Your task to perform on an android device: open app "DoorDash - Food Delivery" (install if not already installed) Image 0: 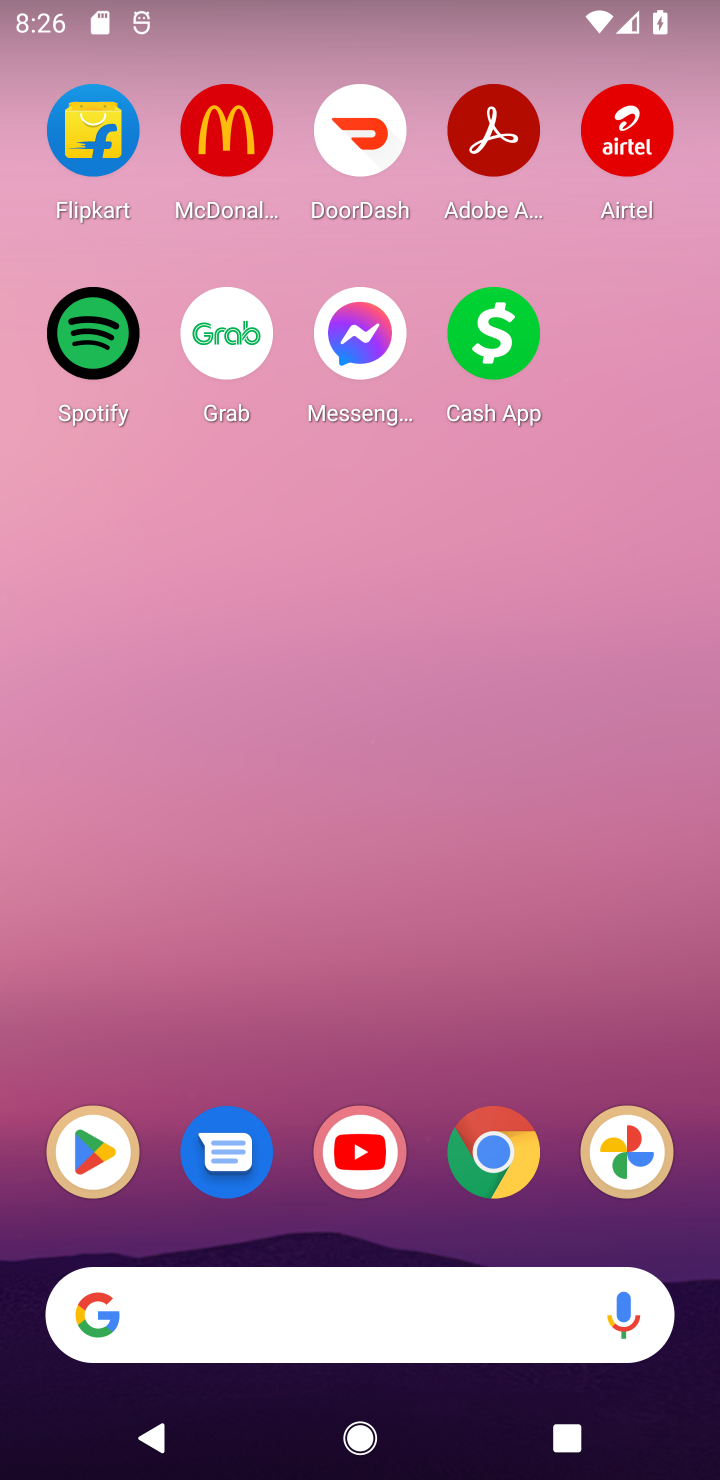
Step 0: click (84, 1137)
Your task to perform on an android device: open app "DoorDash - Food Delivery" (install if not already installed) Image 1: 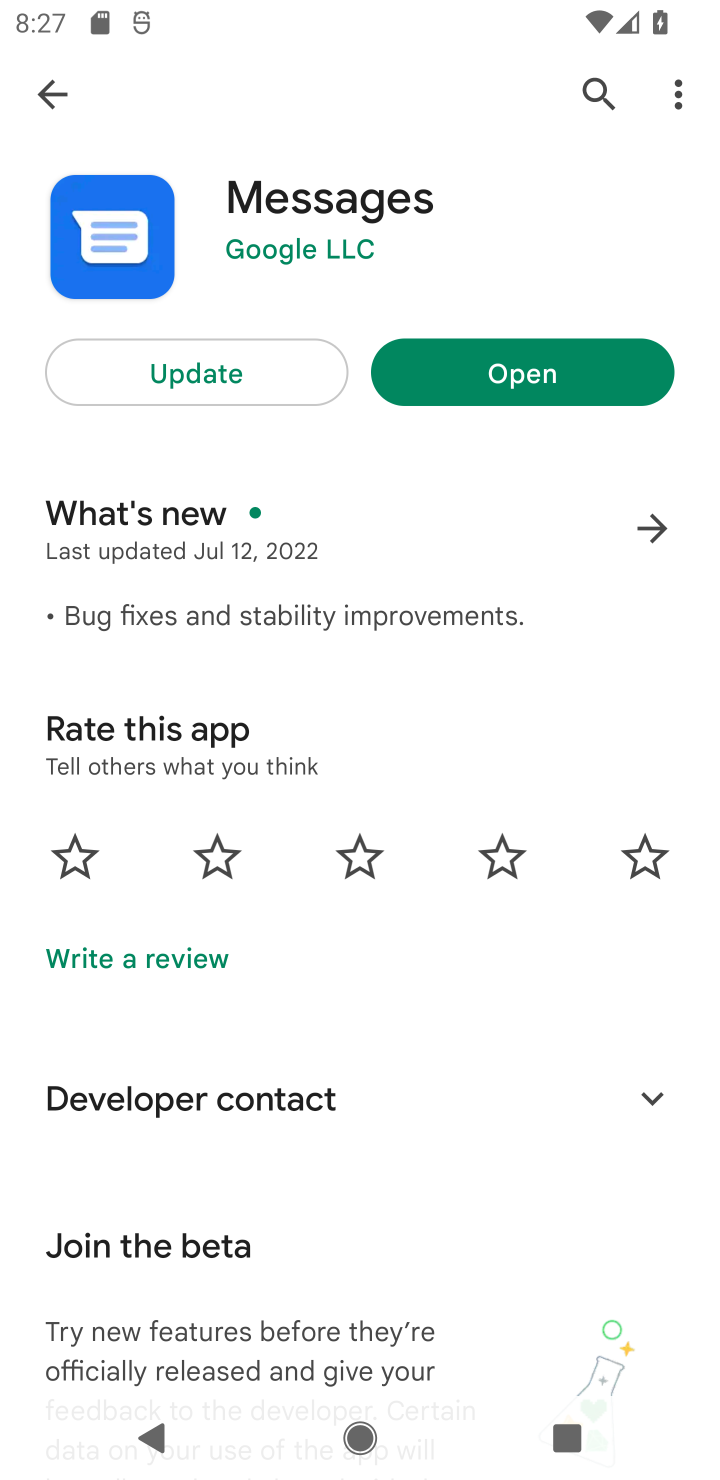
Step 1: click (53, 99)
Your task to perform on an android device: open app "DoorDash - Food Delivery" (install if not already installed) Image 2: 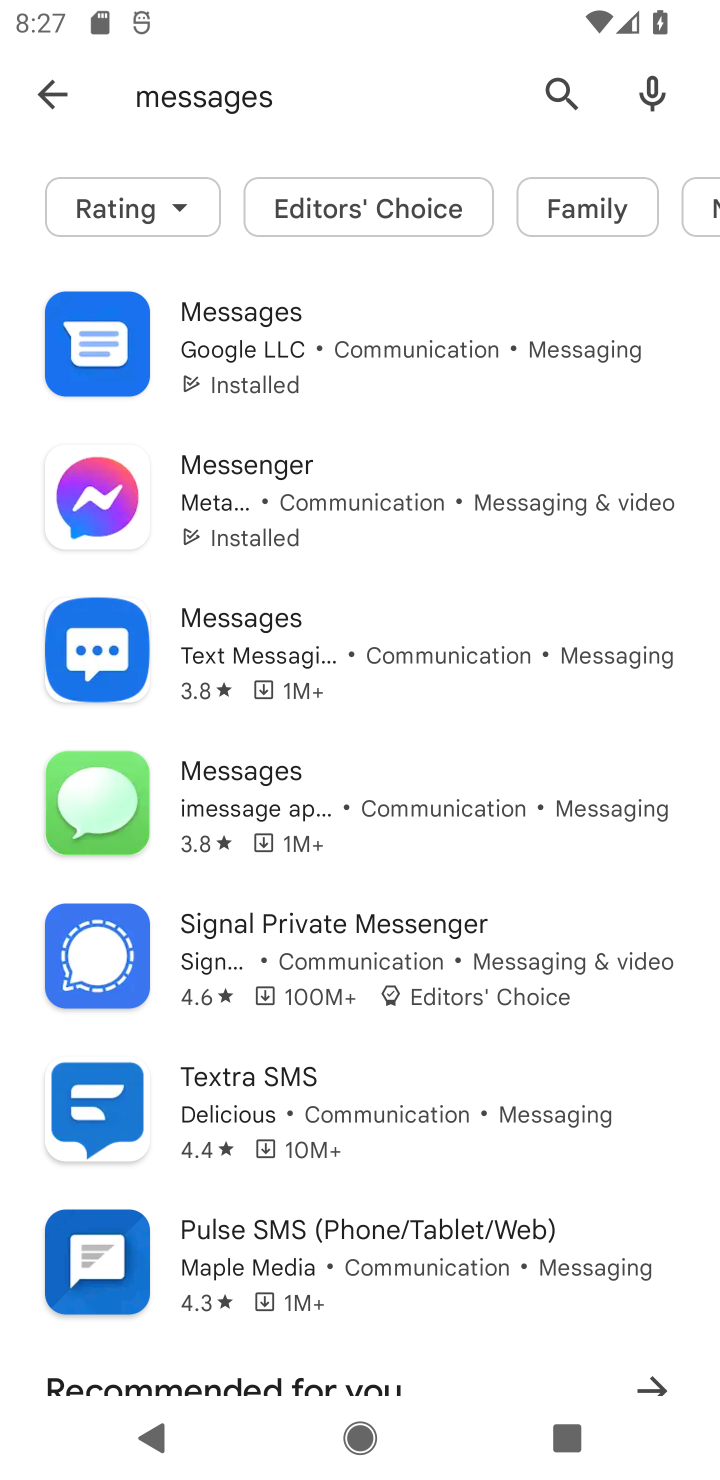
Step 2: click (50, 88)
Your task to perform on an android device: open app "DoorDash - Food Delivery" (install if not already installed) Image 3: 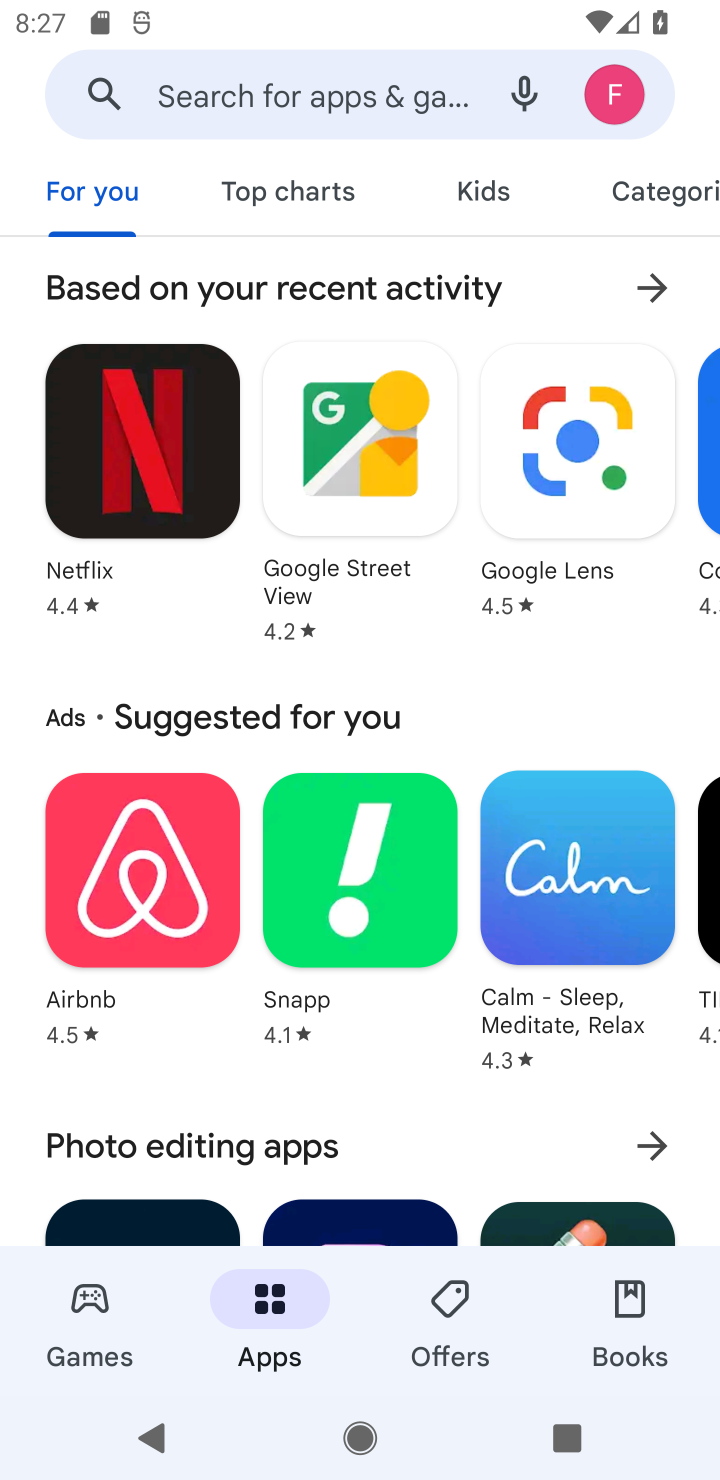
Step 3: click (210, 89)
Your task to perform on an android device: open app "DoorDash - Food Delivery" (install if not already installed) Image 4: 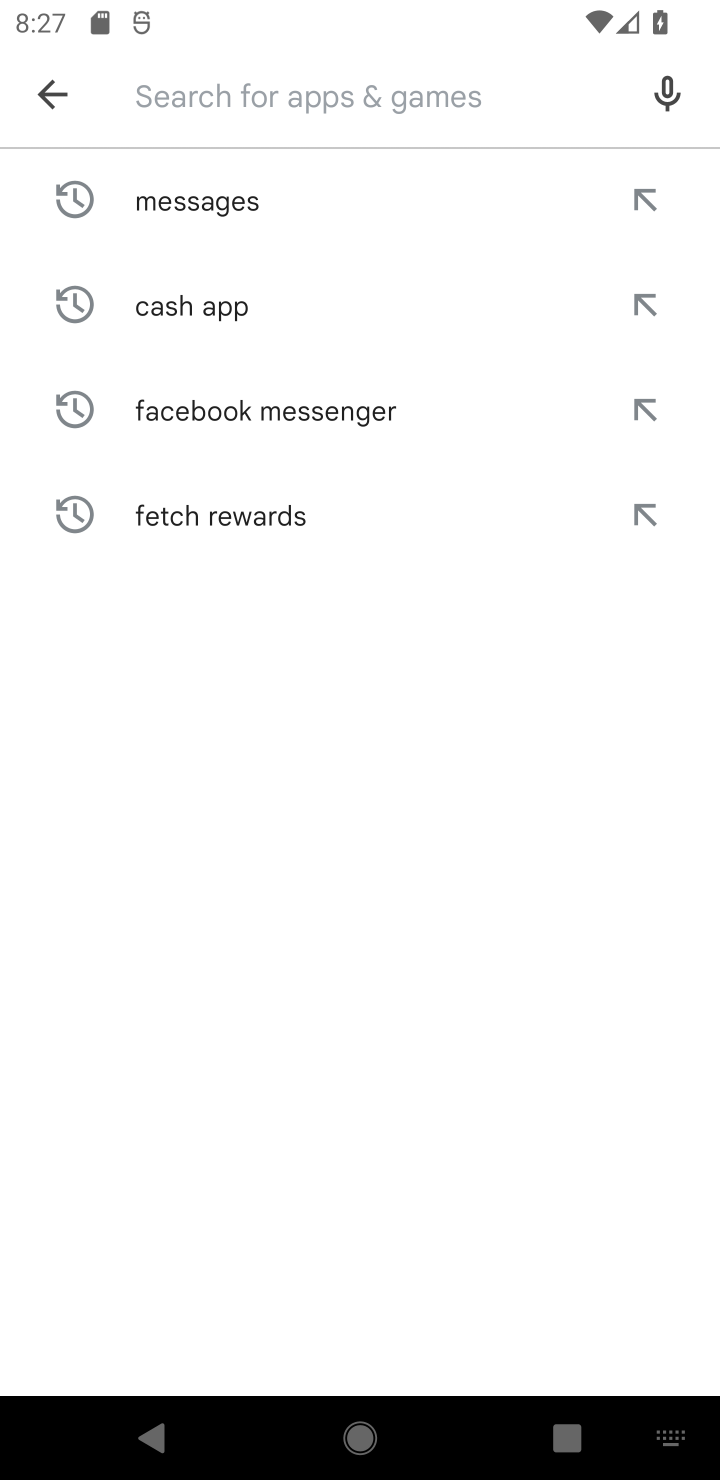
Step 4: type "DoorDash - Food Delivery"
Your task to perform on an android device: open app "DoorDash - Food Delivery" (install if not already installed) Image 5: 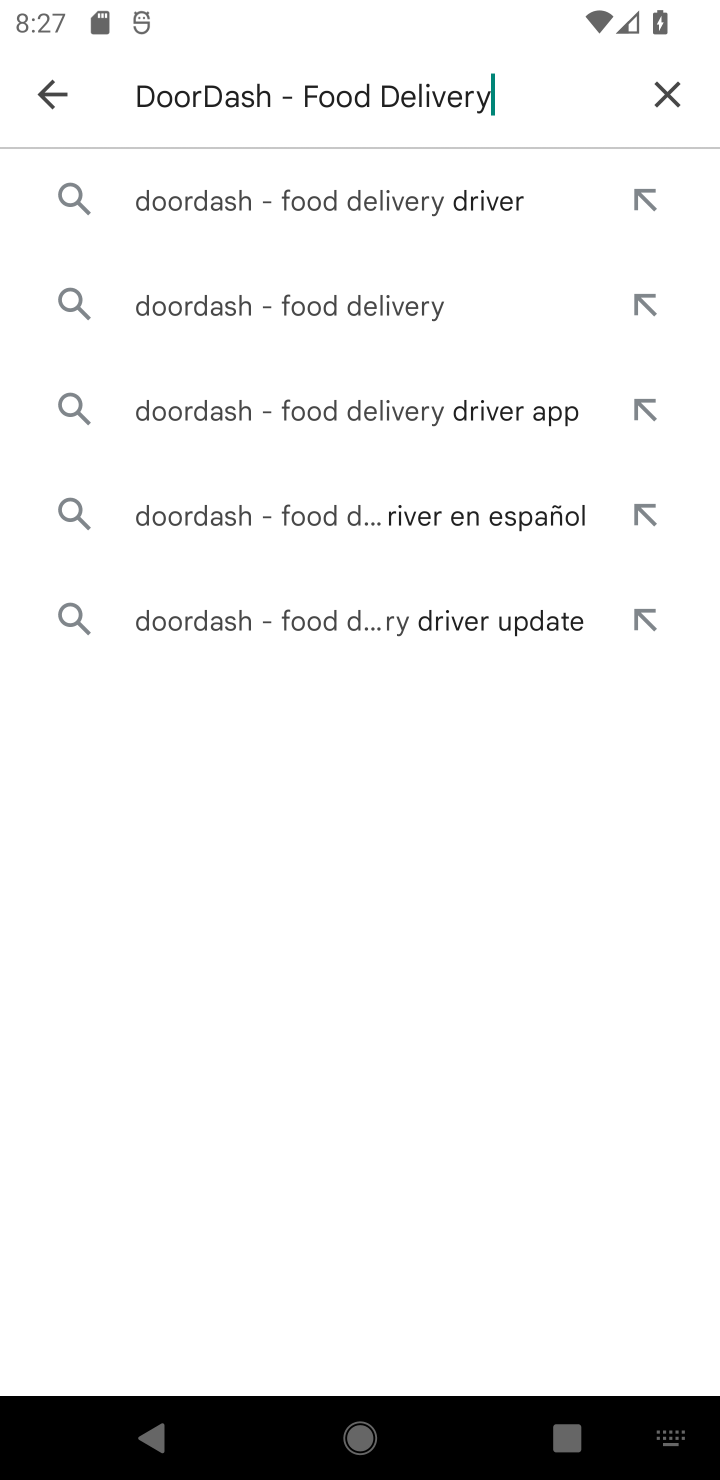
Step 5: click (344, 202)
Your task to perform on an android device: open app "DoorDash - Food Delivery" (install if not already installed) Image 6: 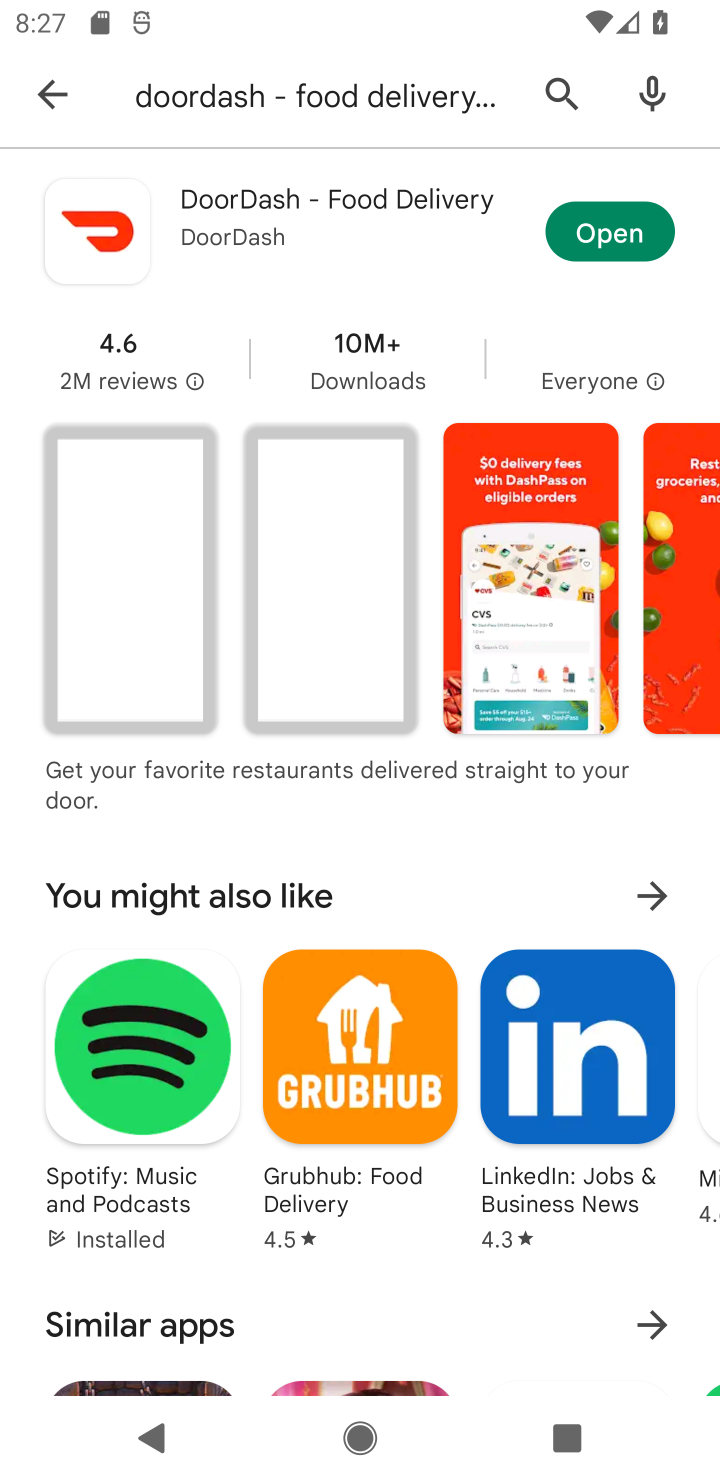
Step 6: click (612, 233)
Your task to perform on an android device: open app "DoorDash - Food Delivery" (install if not already installed) Image 7: 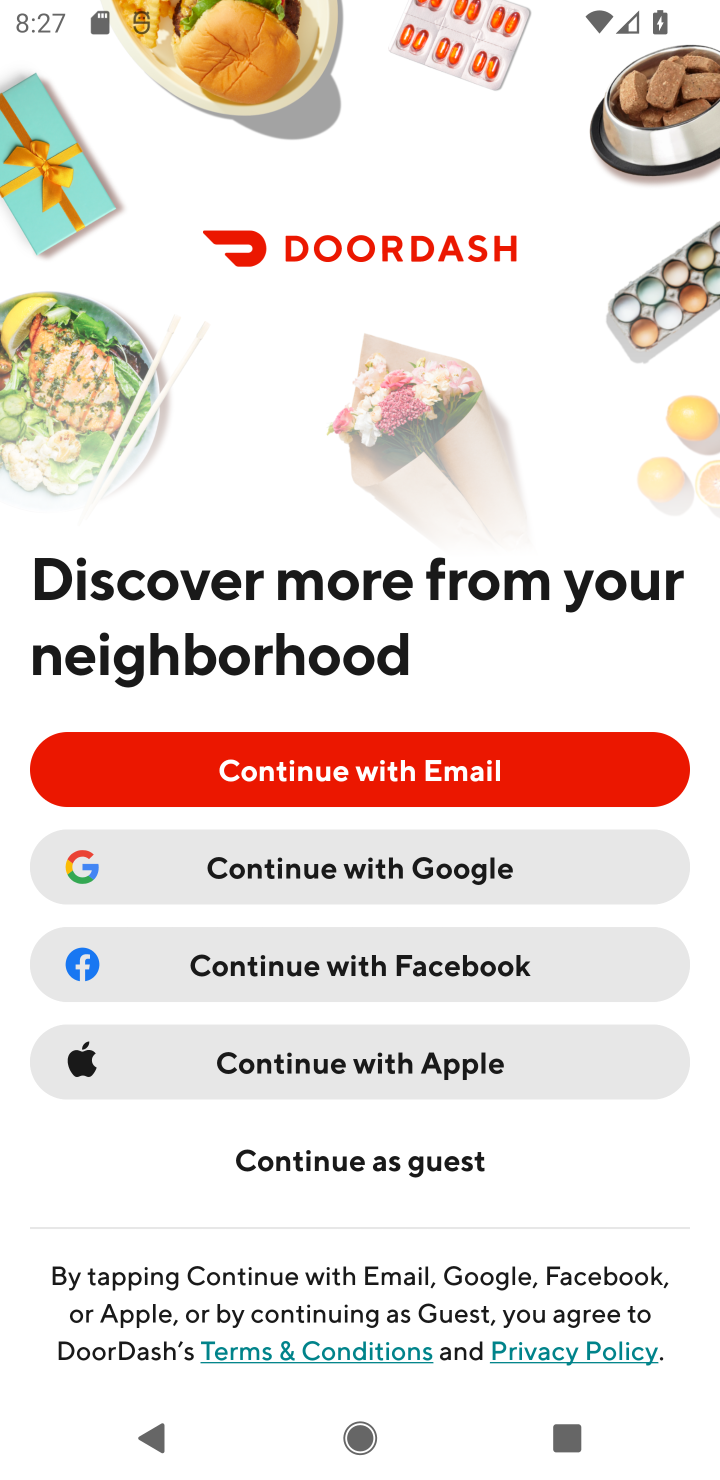
Step 7: task complete